Your task to perform on an android device: check the backup settings in the google photos Image 0: 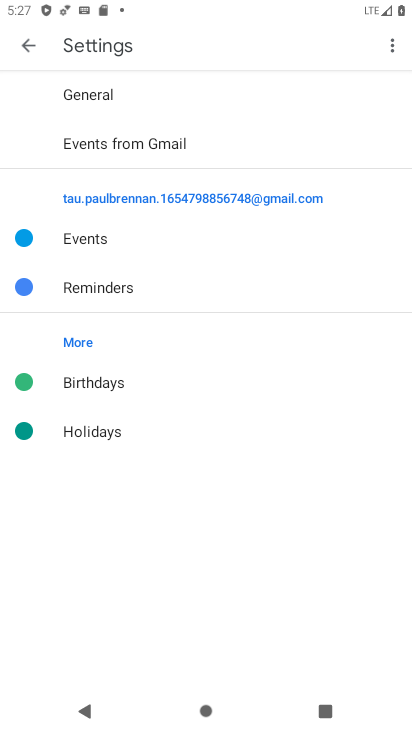
Step 0: press home button
Your task to perform on an android device: check the backup settings in the google photos Image 1: 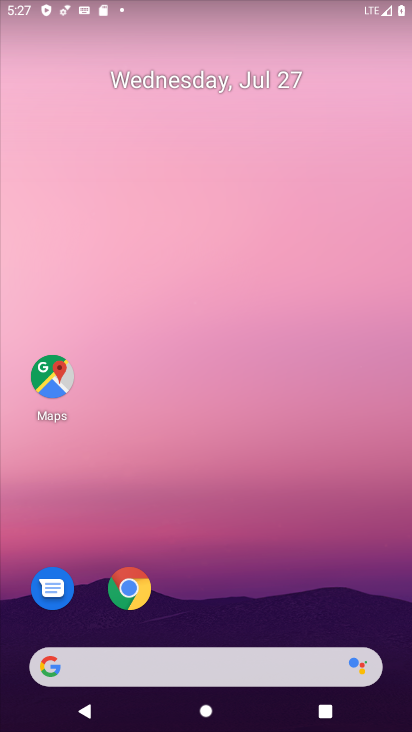
Step 1: drag from (281, 610) to (295, 81)
Your task to perform on an android device: check the backup settings in the google photos Image 2: 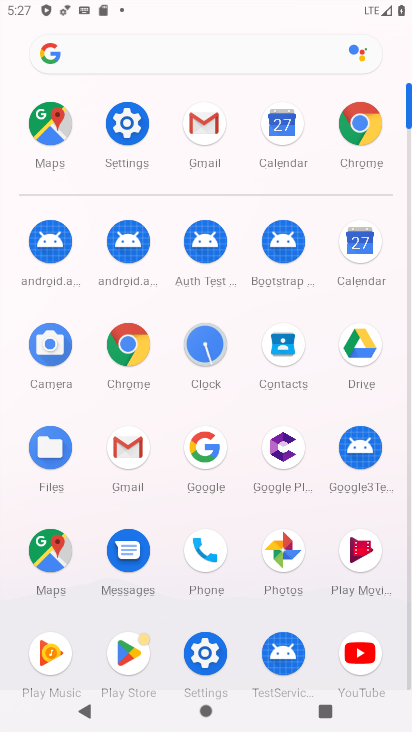
Step 2: click (271, 540)
Your task to perform on an android device: check the backup settings in the google photos Image 3: 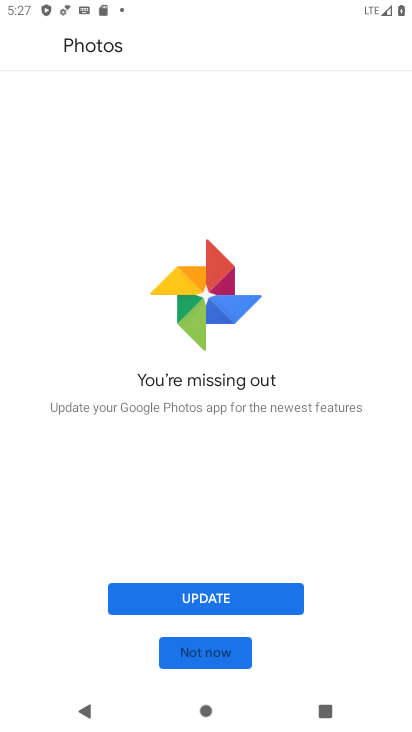
Step 3: click (217, 592)
Your task to perform on an android device: check the backup settings in the google photos Image 4: 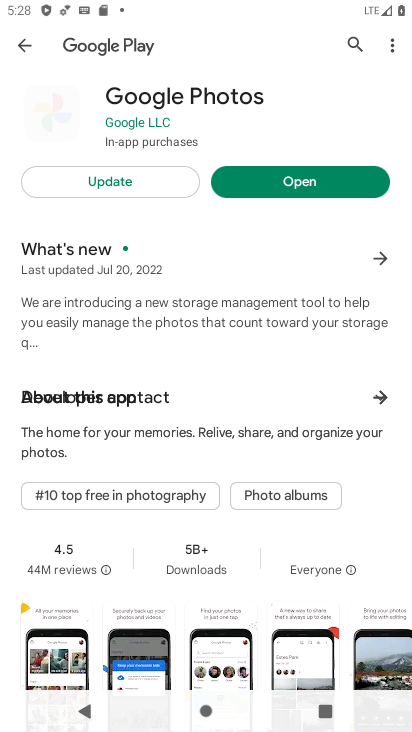
Step 4: click (124, 186)
Your task to perform on an android device: check the backup settings in the google photos Image 5: 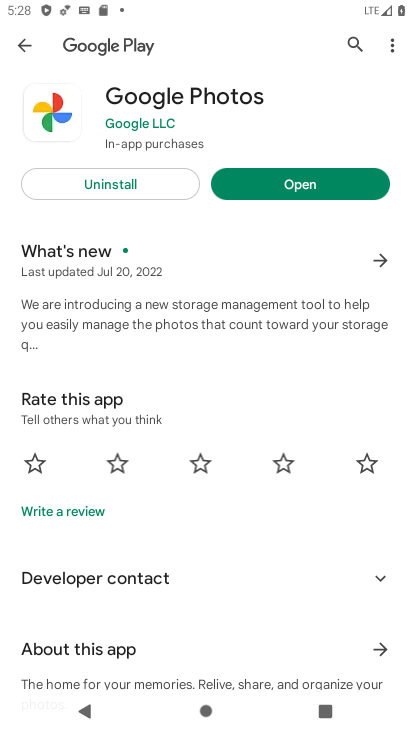
Step 5: click (312, 176)
Your task to perform on an android device: check the backup settings in the google photos Image 6: 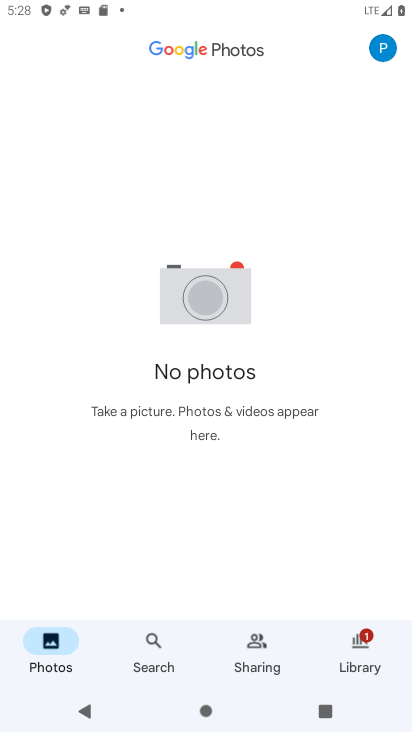
Step 6: click (395, 44)
Your task to perform on an android device: check the backup settings in the google photos Image 7: 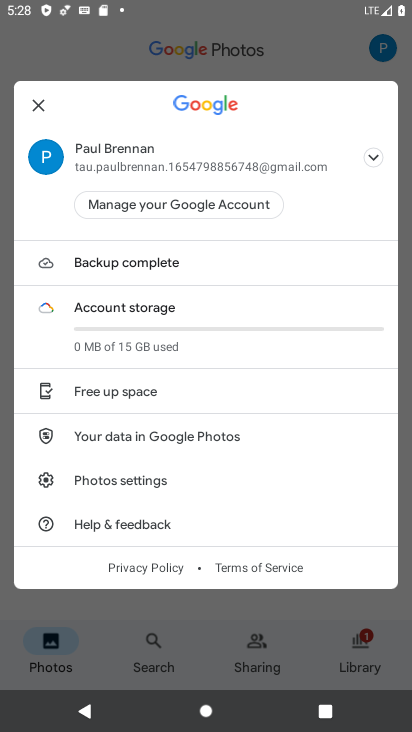
Step 7: click (130, 489)
Your task to perform on an android device: check the backup settings in the google photos Image 8: 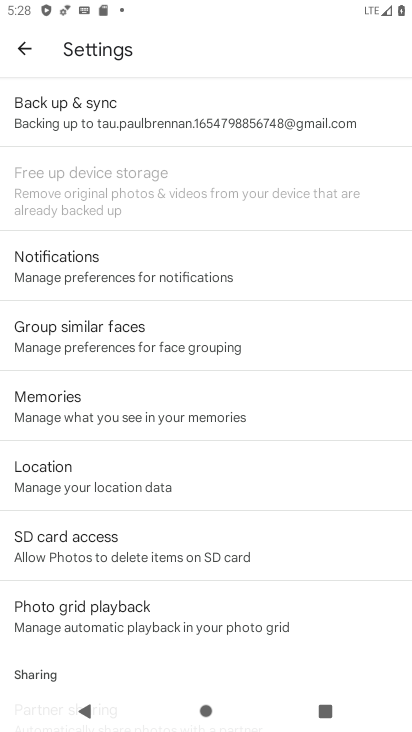
Step 8: click (168, 106)
Your task to perform on an android device: check the backup settings in the google photos Image 9: 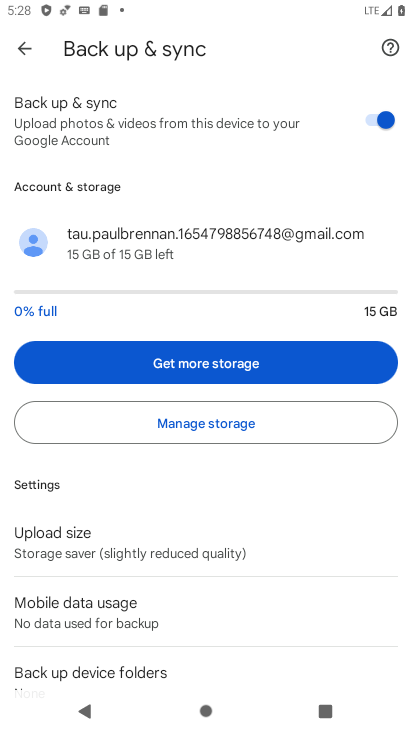
Step 9: task complete